Your task to perform on an android device: turn on sleep mode Image 0: 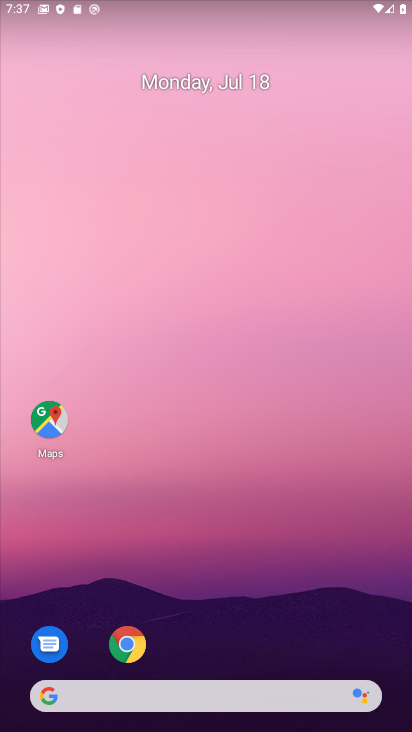
Step 0: drag from (325, 624) to (281, 261)
Your task to perform on an android device: turn on sleep mode Image 1: 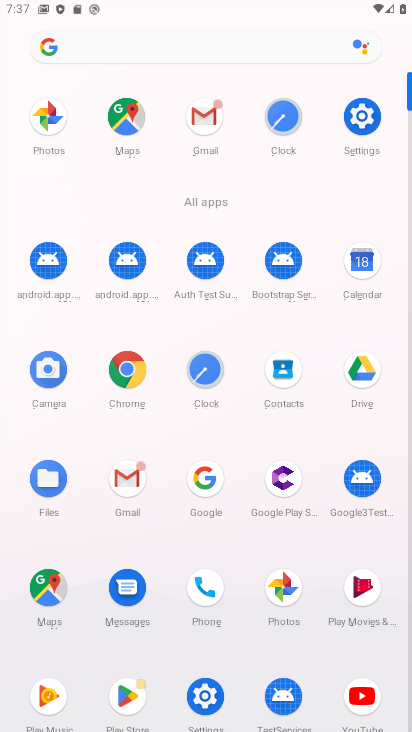
Step 1: click (200, 710)
Your task to perform on an android device: turn on sleep mode Image 2: 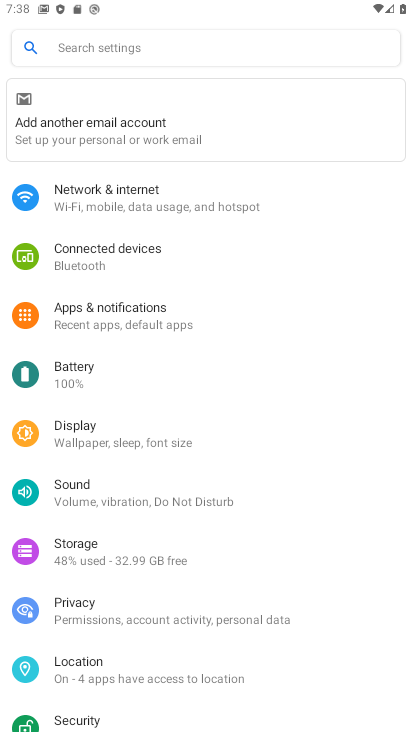
Step 2: click (167, 431)
Your task to perform on an android device: turn on sleep mode Image 3: 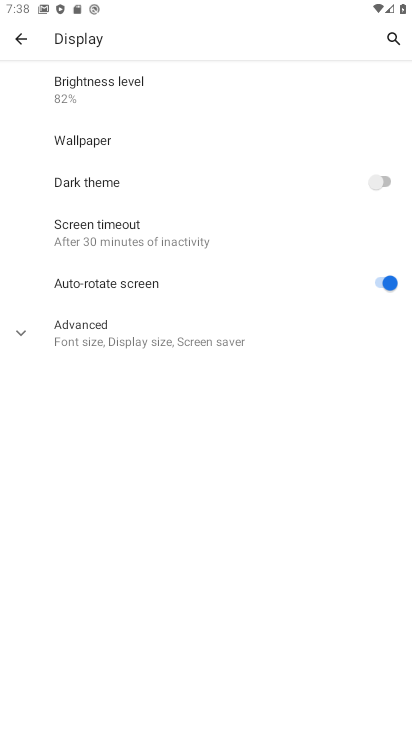
Step 3: task complete